Your task to perform on an android device: Open internet settings Image 0: 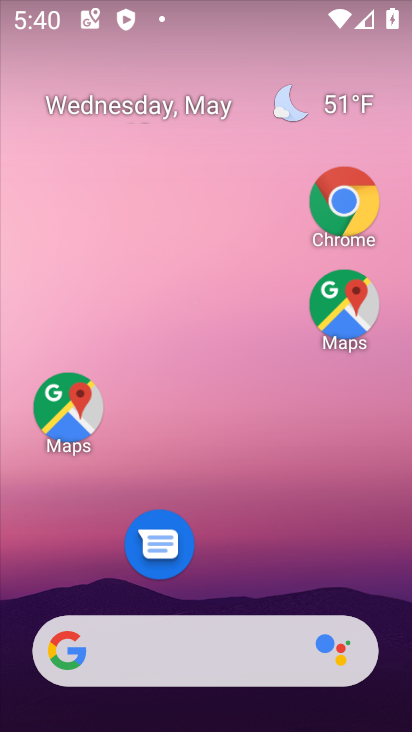
Step 0: drag from (237, 566) to (134, 5)
Your task to perform on an android device: Open internet settings Image 1: 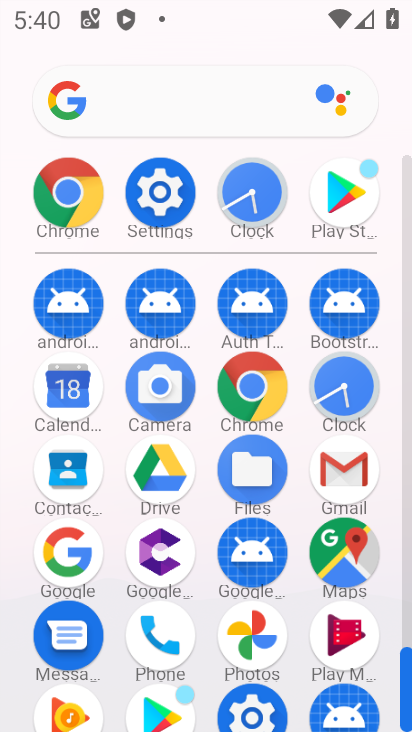
Step 1: click (155, 184)
Your task to perform on an android device: Open internet settings Image 2: 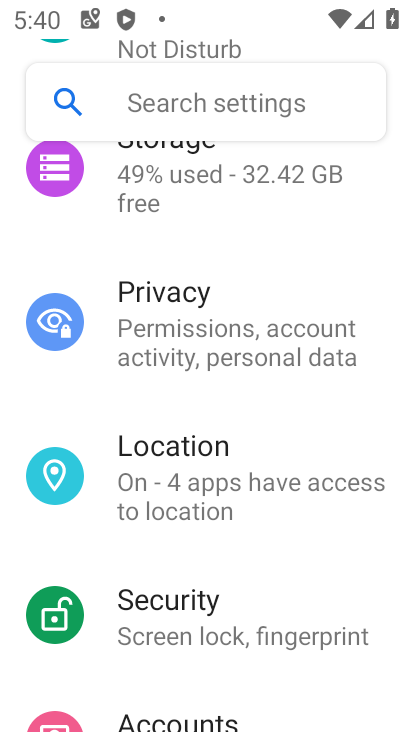
Step 2: click (224, 649)
Your task to perform on an android device: Open internet settings Image 3: 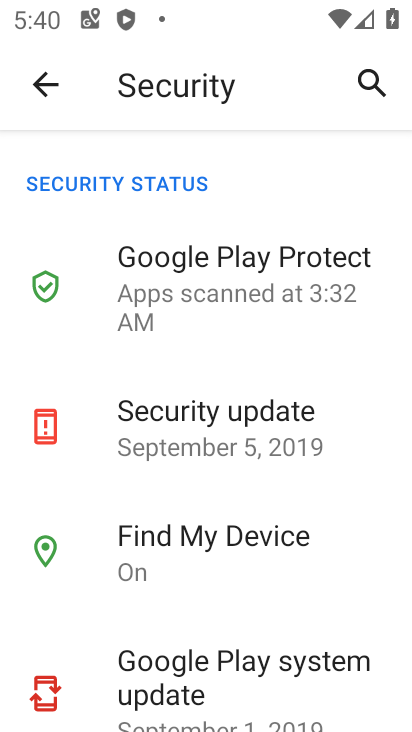
Step 3: press back button
Your task to perform on an android device: Open internet settings Image 4: 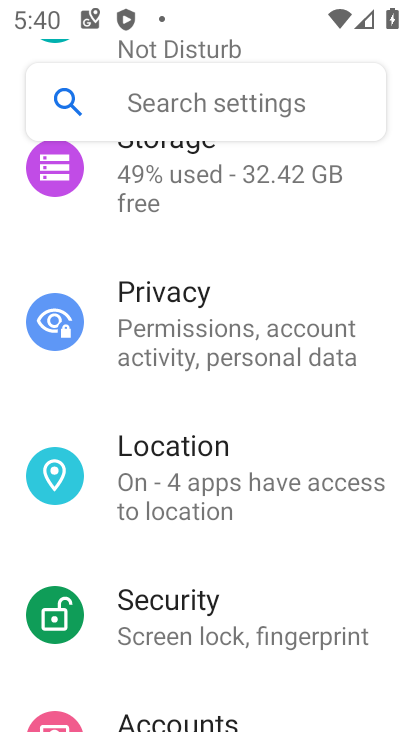
Step 4: drag from (190, 237) to (236, 665)
Your task to perform on an android device: Open internet settings Image 5: 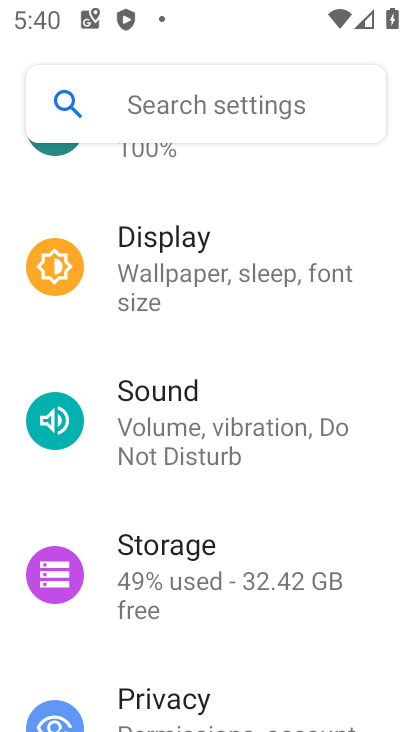
Step 5: drag from (185, 227) to (221, 707)
Your task to perform on an android device: Open internet settings Image 6: 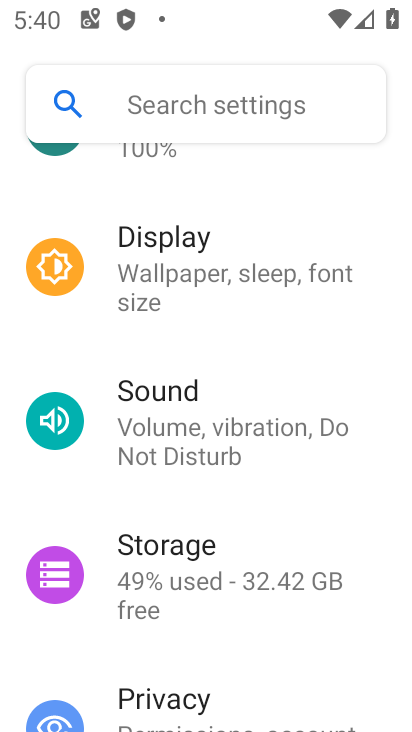
Step 6: drag from (180, 249) to (253, 718)
Your task to perform on an android device: Open internet settings Image 7: 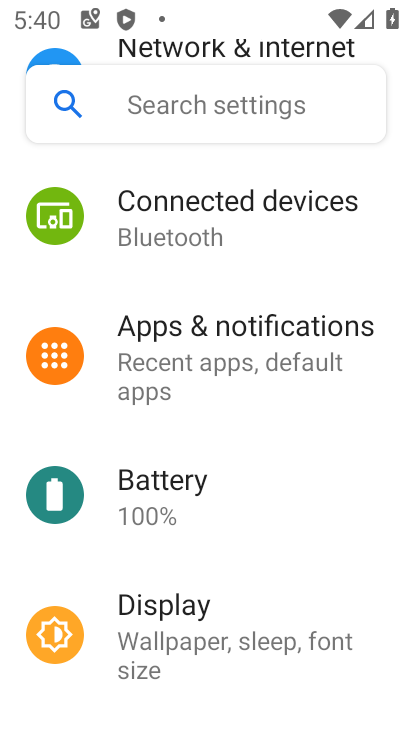
Step 7: drag from (186, 253) to (205, 720)
Your task to perform on an android device: Open internet settings Image 8: 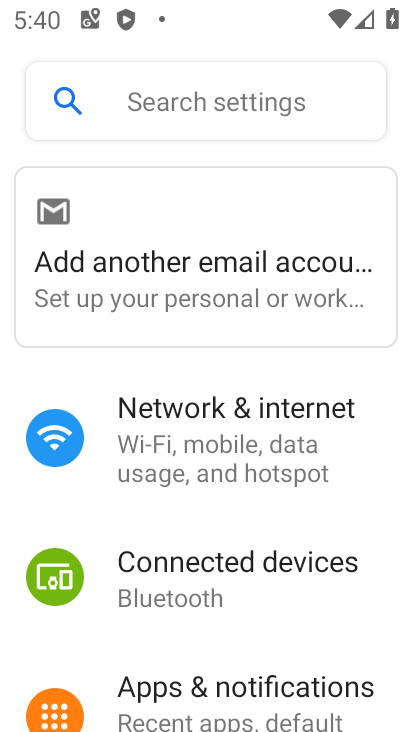
Step 8: click (196, 436)
Your task to perform on an android device: Open internet settings Image 9: 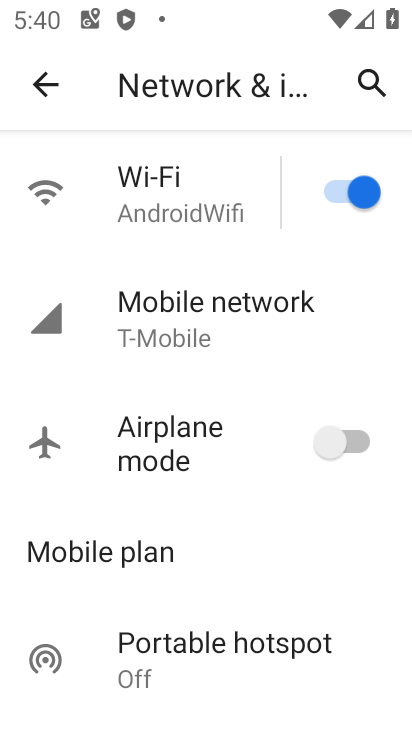
Step 9: task complete